Your task to perform on an android device: Open Chrome and go to settings Image 0: 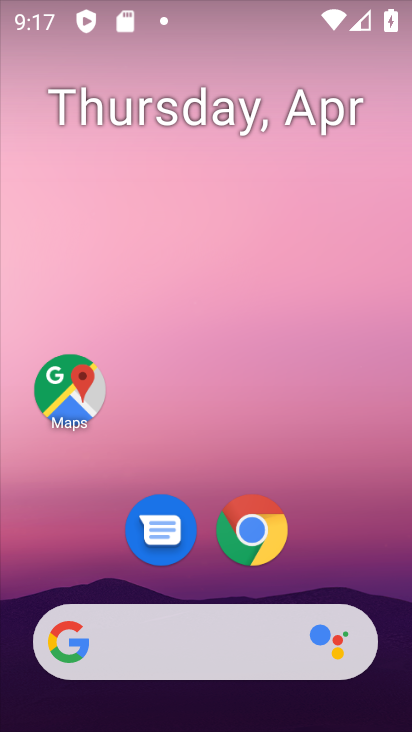
Step 0: drag from (353, 566) to (223, 150)
Your task to perform on an android device: Open Chrome and go to settings Image 1: 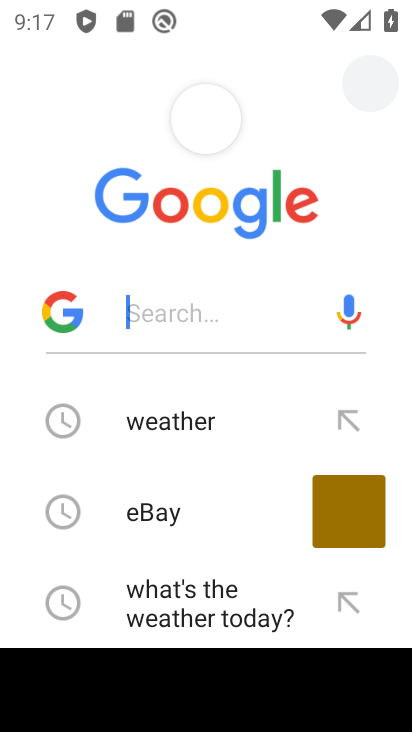
Step 1: press home button
Your task to perform on an android device: Open Chrome and go to settings Image 2: 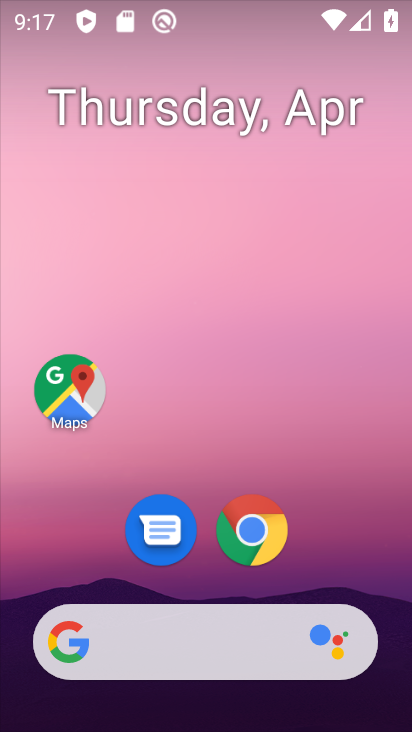
Step 2: drag from (379, 592) to (250, 141)
Your task to perform on an android device: Open Chrome and go to settings Image 3: 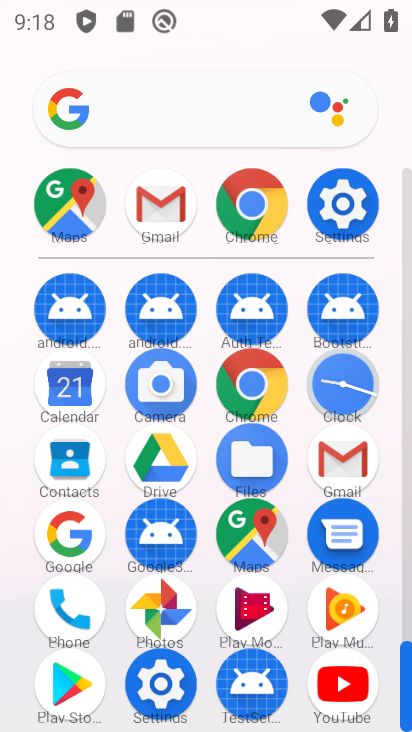
Step 3: click (257, 388)
Your task to perform on an android device: Open Chrome and go to settings Image 4: 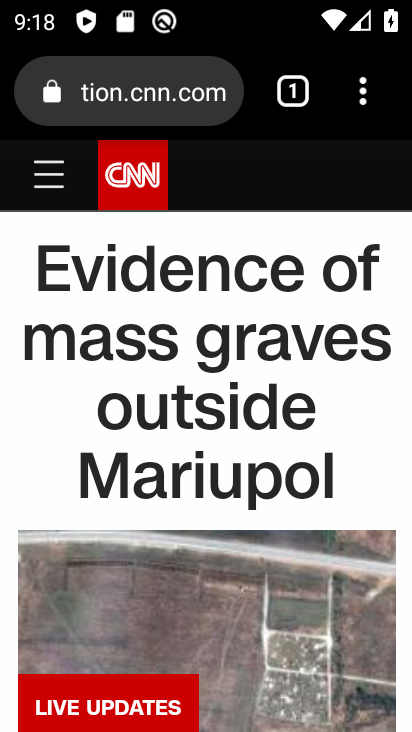
Step 4: press back button
Your task to perform on an android device: Open Chrome and go to settings Image 5: 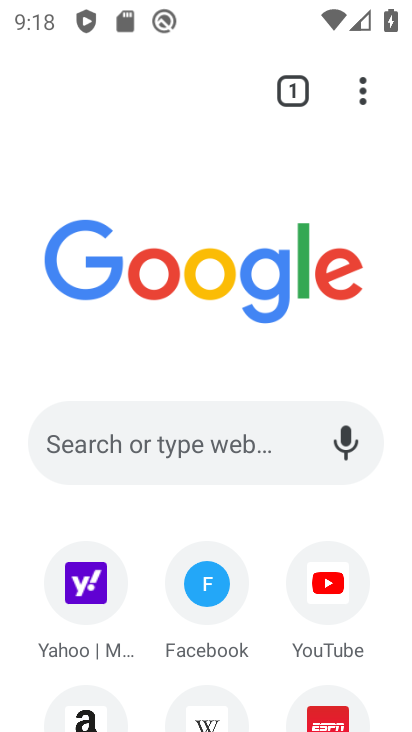
Step 5: click (356, 83)
Your task to perform on an android device: Open Chrome and go to settings Image 6: 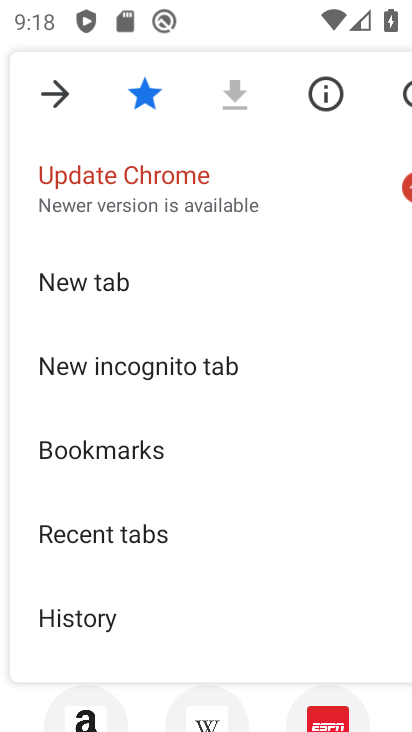
Step 6: drag from (202, 609) to (209, 306)
Your task to perform on an android device: Open Chrome and go to settings Image 7: 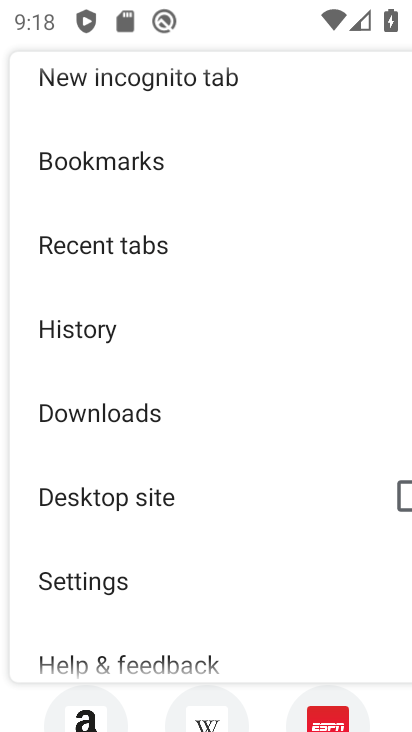
Step 7: click (119, 593)
Your task to perform on an android device: Open Chrome and go to settings Image 8: 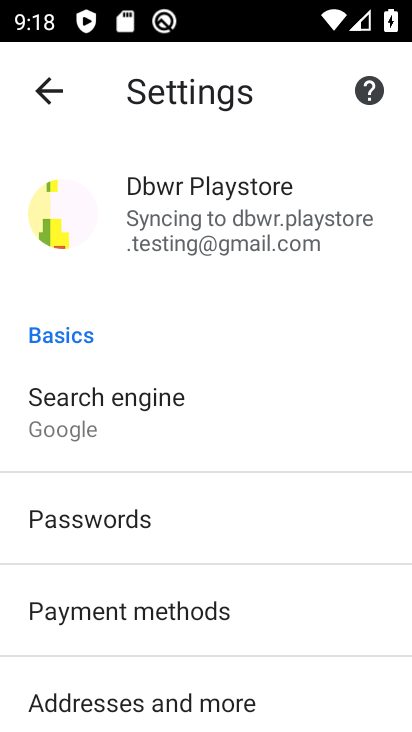
Step 8: task complete